Your task to perform on an android device: star an email in the gmail app Image 0: 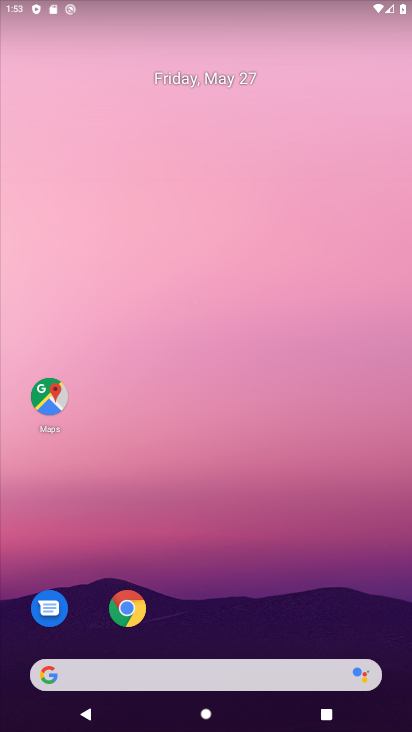
Step 0: drag from (157, 660) to (308, 227)
Your task to perform on an android device: star an email in the gmail app Image 1: 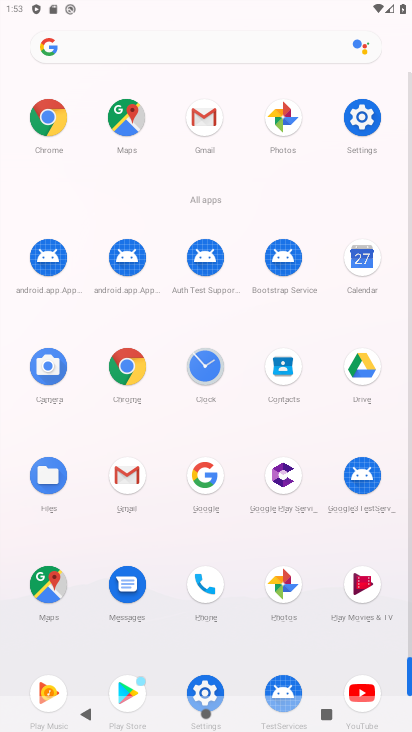
Step 1: click (134, 491)
Your task to perform on an android device: star an email in the gmail app Image 2: 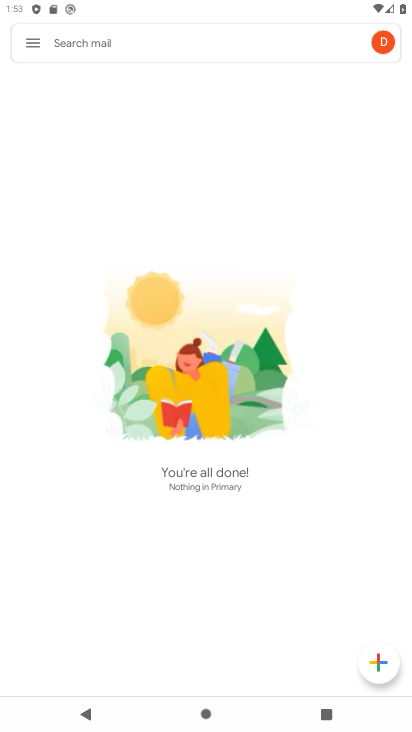
Step 2: click (44, 35)
Your task to perform on an android device: star an email in the gmail app Image 3: 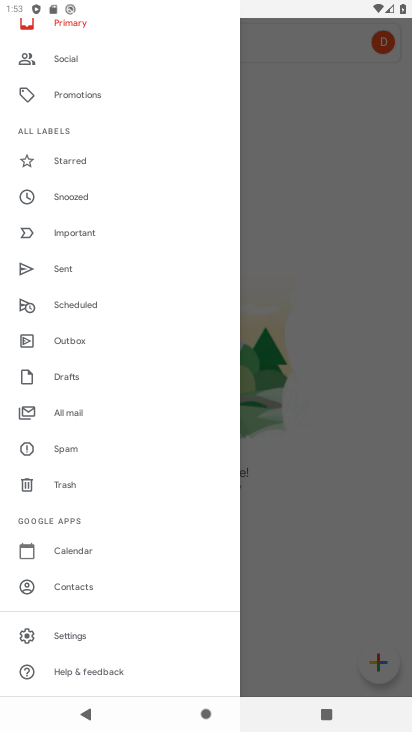
Step 3: click (109, 409)
Your task to perform on an android device: star an email in the gmail app Image 4: 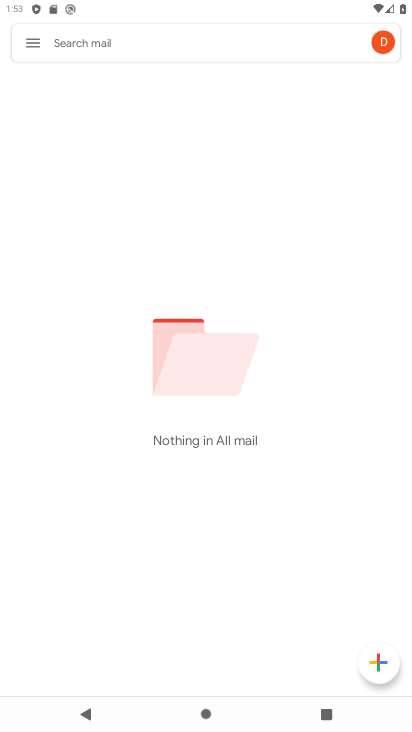
Step 4: task complete